Your task to perform on an android device: change the clock display to analog Image 0: 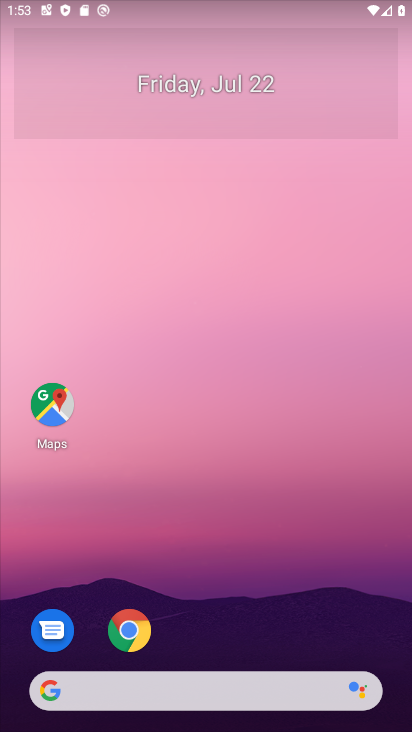
Step 0: drag from (185, 647) to (138, 114)
Your task to perform on an android device: change the clock display to analog Image 1: 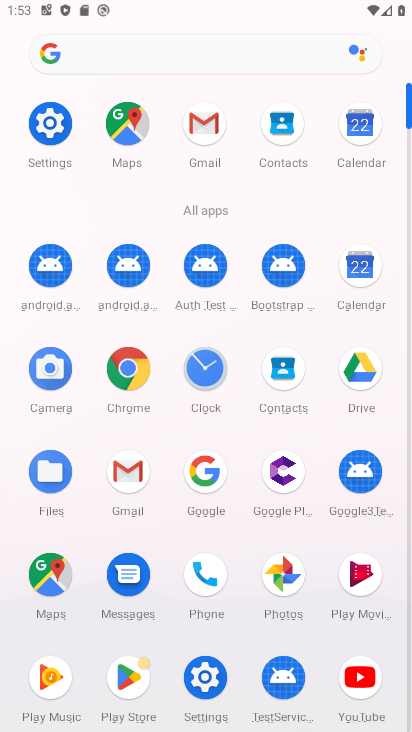
Step 1: click (209, 405)
Your task to perform on an android device: change the clock display to analog Image 2: 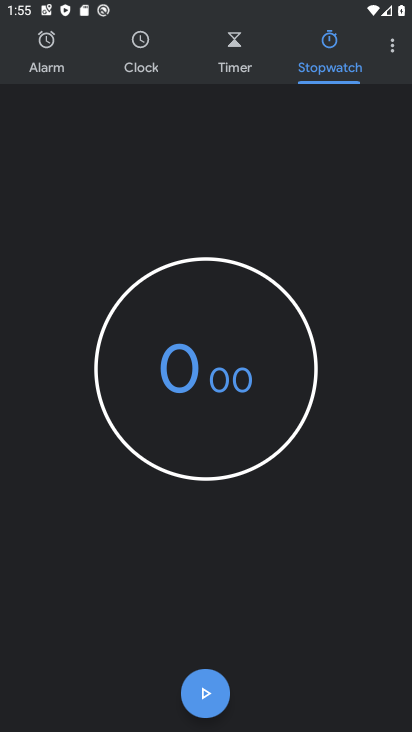
Step 2: click (393, 41)
Your task to perform on an android device: change the clock display to analog Image 3: 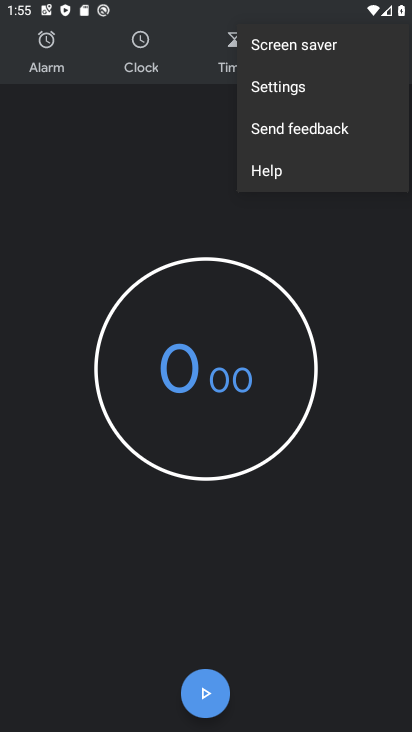
Step 3: click (300, 89)
Your task to perform on an android device: change the clock display to analog Image 4: 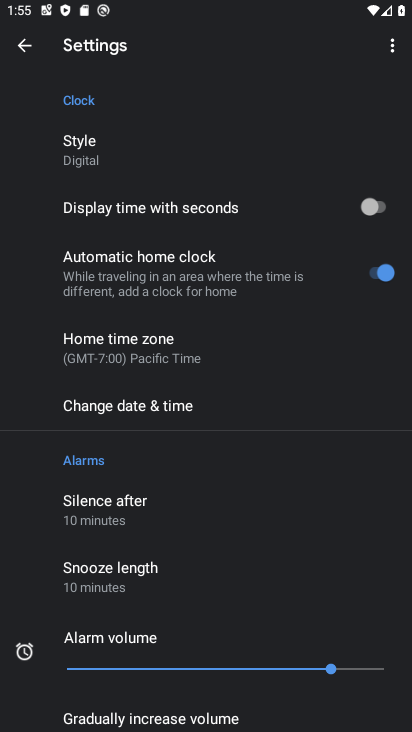
Step 4: click (89, 142)
Your task to perform on an android device: change the clock display to analog Image 5: 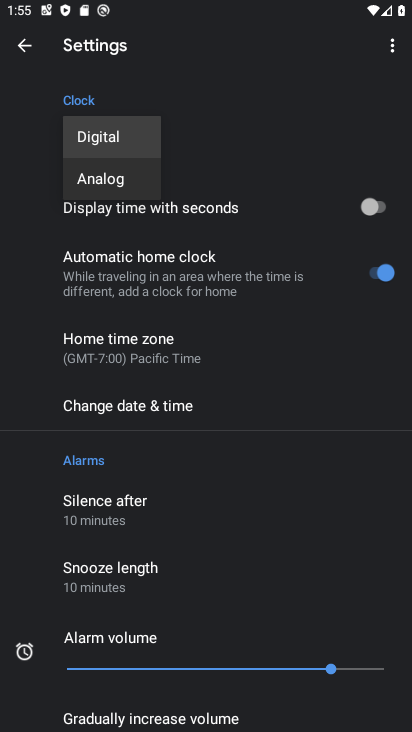
Step 5: click (98, 177)
Your task to perform on an android device: change the clock display to analog Image 6: 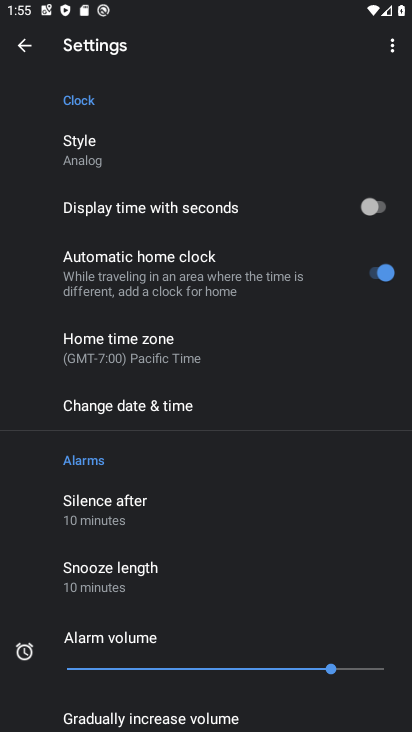
Step 6: task complete